Your task to perform on an android device: change alarm snooze length Image 0: 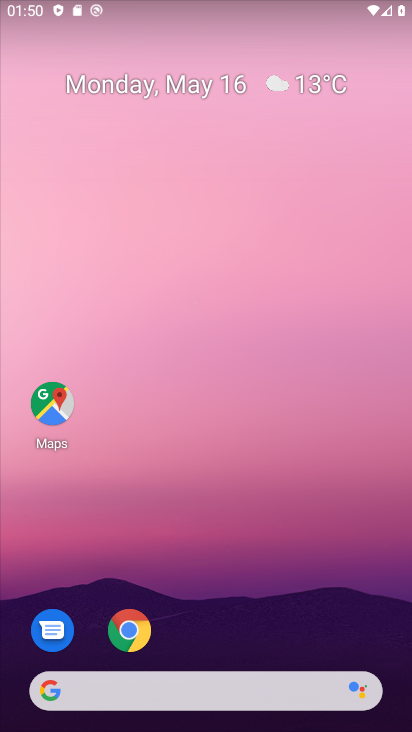
Step 0: drag from (268, 598) to (298, 80)
Your task to perform on an android device: change alarm snooze length Image 1: 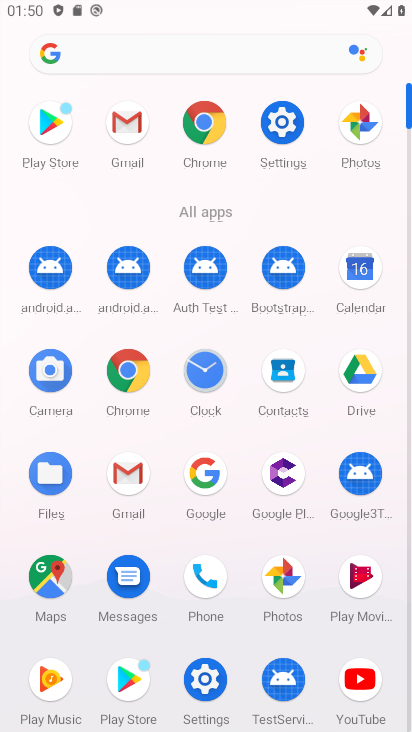
Step 1: click (202, 379)
Your task to perform on an android device: change alarm snooze length Image 2: 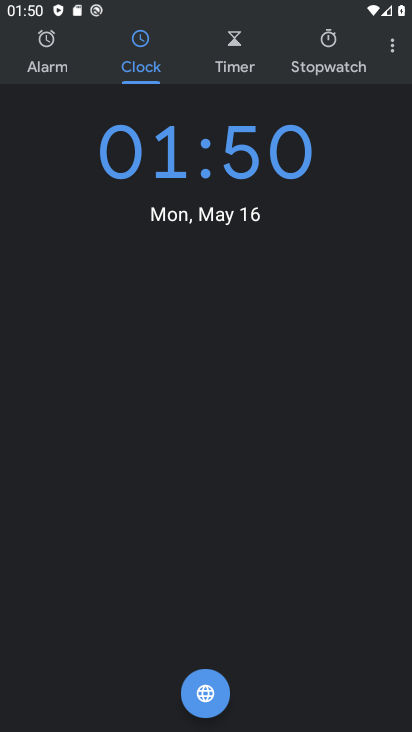
Step 2: drag from (396, 54) to (359, 93)
Your task to perform on an android device: change alarm snooze length Image 3: 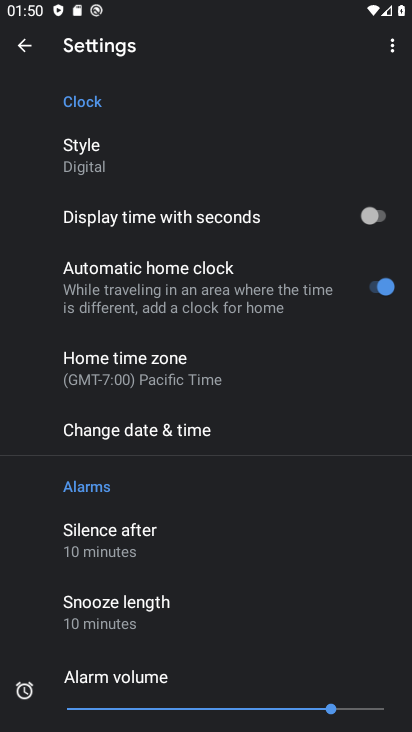
Step 3: click (204, 603)
Your task to perform on an android device: change alarm snooze length Image 4: 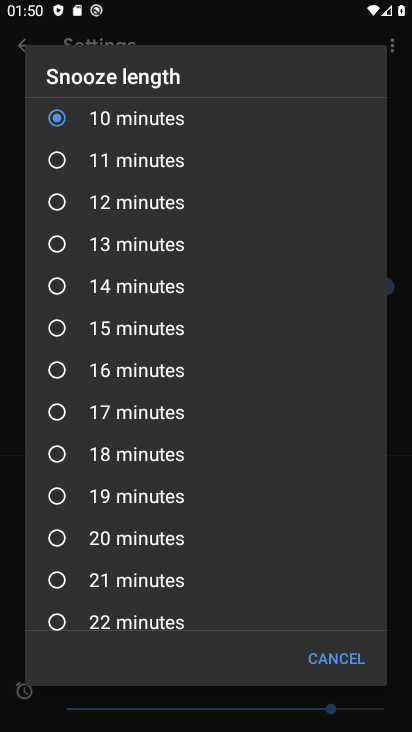
Step 4: click (145, 538)
Your task to perform on an android device: change alarm snooze length Image 5: 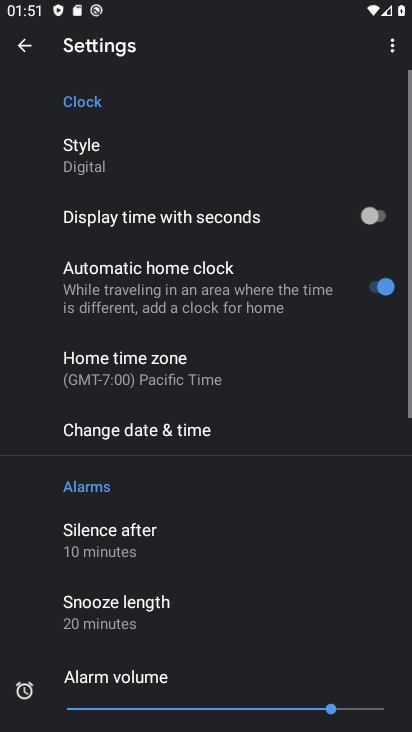
Step 5: task complete